Your task to perform on an android device: Toggle the flashlight Image 0: 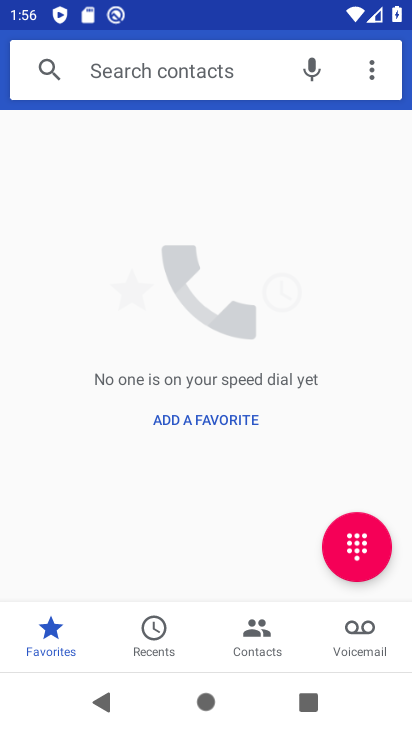
Step 0: drag from (230, 576) to (325, 178)
Your task to perform on an android device: Toggle the flashlight Image 1: 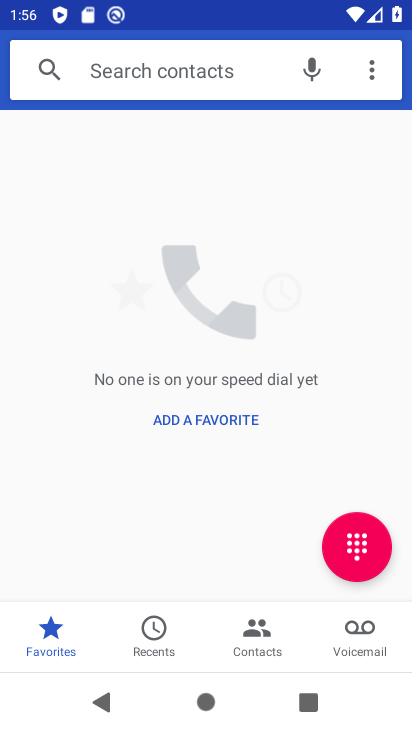
Step 1: press home button
Your task to perform on an android device: Toggle the flashlight Image 2: 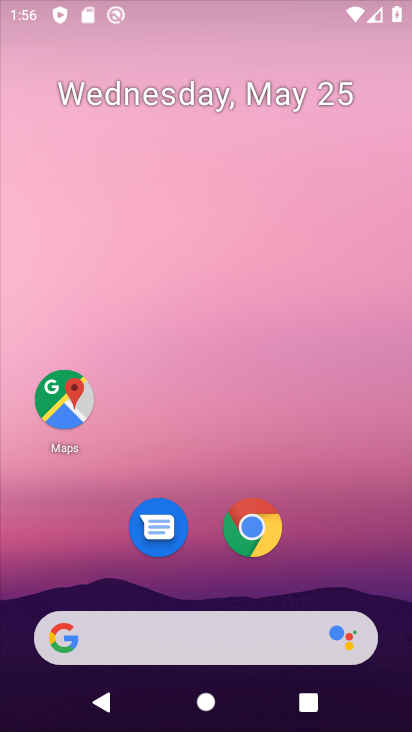
Step 2: drag from (207, 616) to (297, 224)
Your task to perform on an android device: Toggle the flashlight Image 3: 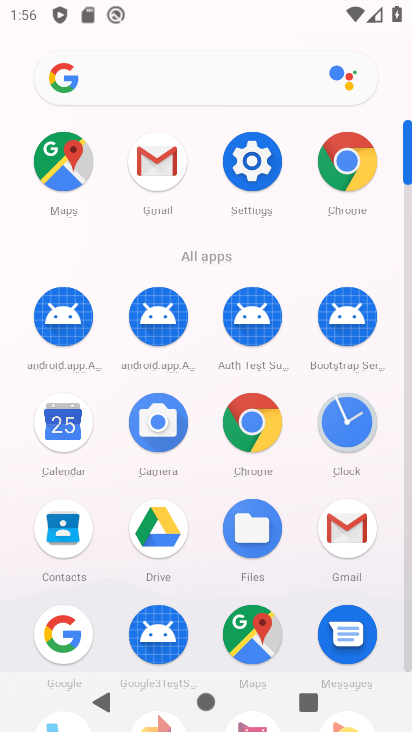
Step 3: click (256, 169)
Your task to perform on an android device: Toggle the flashlight Image 4: 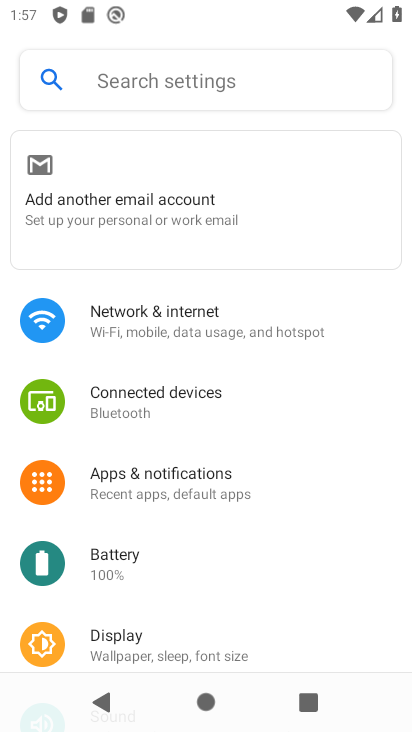
Step 4: click (208, 74)
Your task to perform on an android device: Toggle the flashlight Image 5: 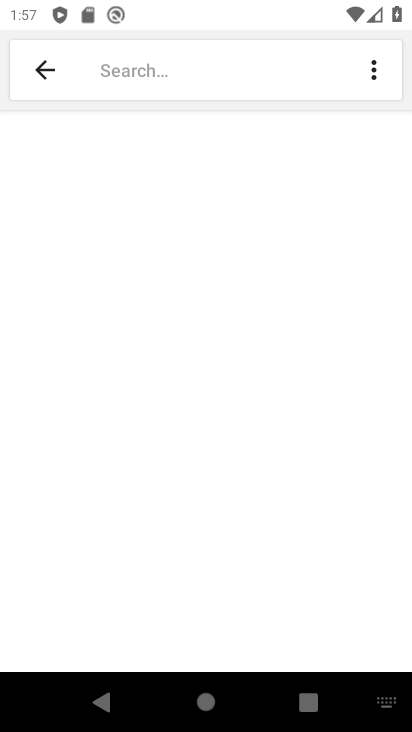
Step 5: type "flashlight"
Your task to perform on an android device: Toggle the flashlight Image 6: 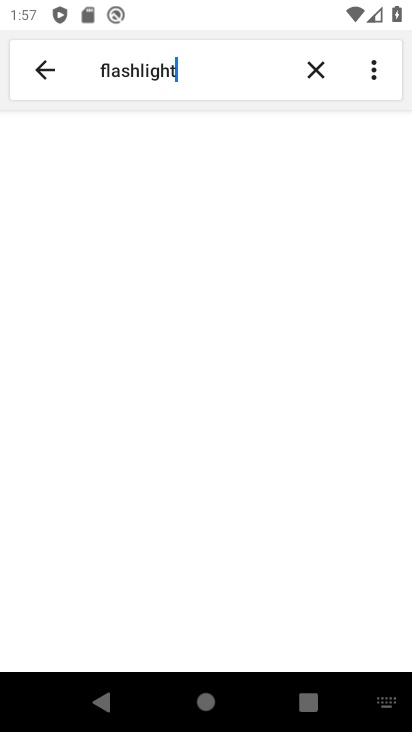
Step 6: click (163, 174)
Your task to perform on an android device: Toggle the flashlight Image 7: 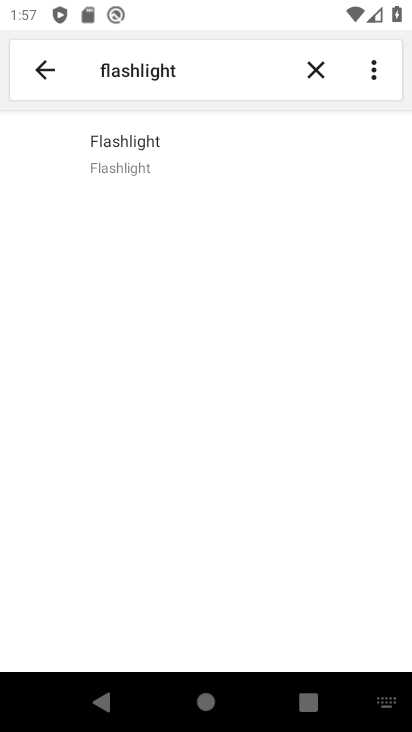
Step 7: click (162, 175)
Your task to perform on an android device: Toggle the flashlight Image 8: 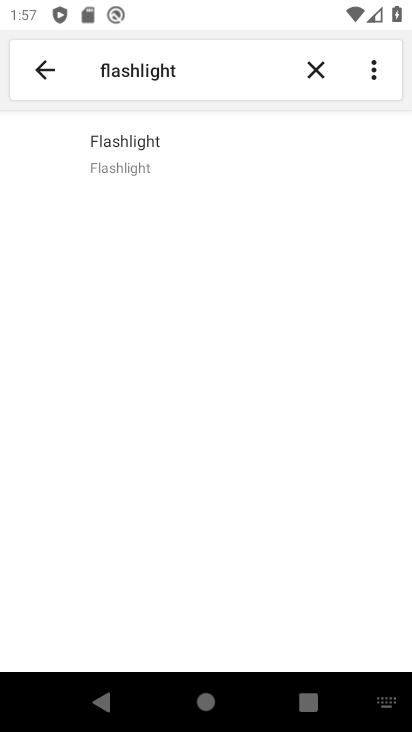
Step 8: task complete